Your task to perform on an android device: turn on sleep mode Image 0: 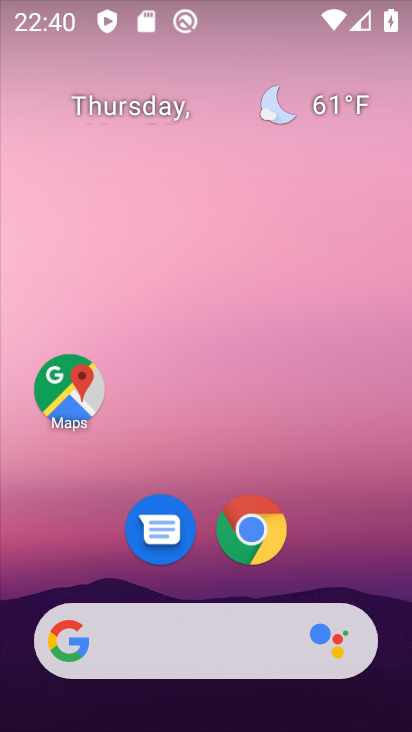
Step 0: drag from (357, 552) to (336, 96)
Your task to perform on an android device: turn on sleep mode Image 1: 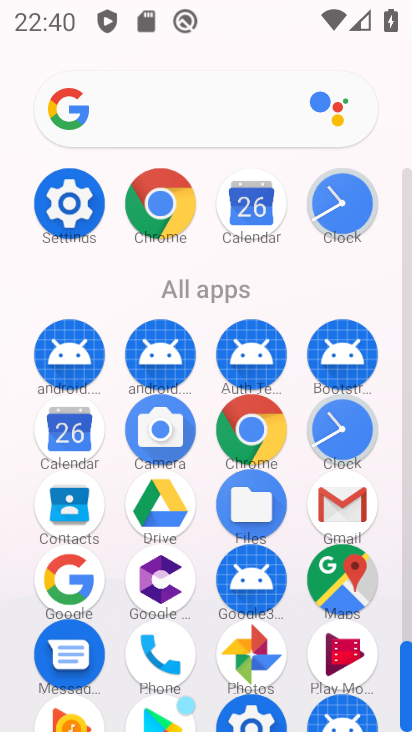
Step 1: click (69, 220)
Your task to perform on an android device: turn on sleep mode Image 2: 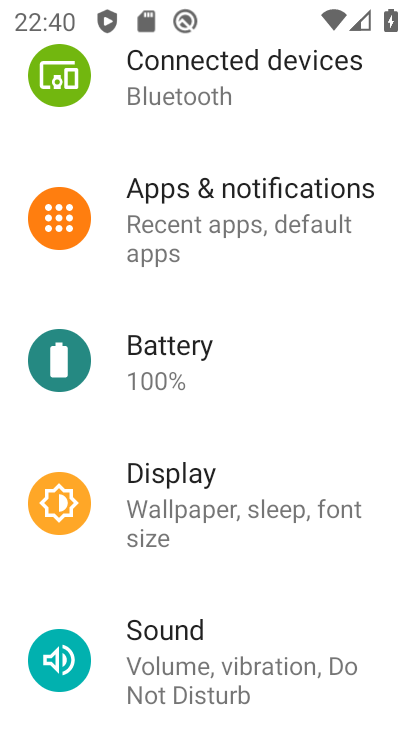
Step 2: click (223, 508)
Your task to perform on an android device: turn on sleep mode Image 3: 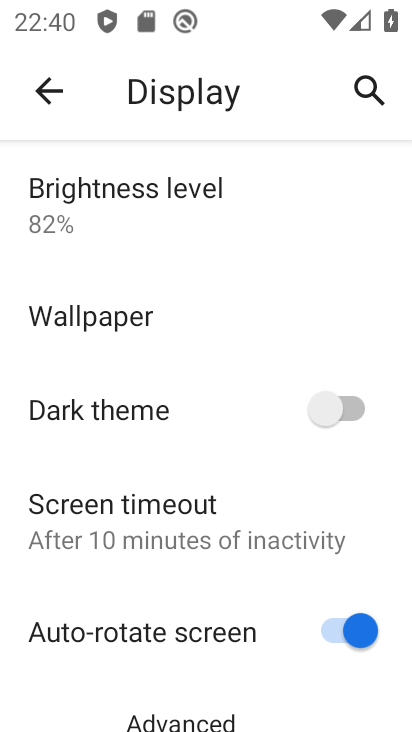
Step 3: click (178, 527)
Your task to perform on an android device: turn on sleep mode Image 4: 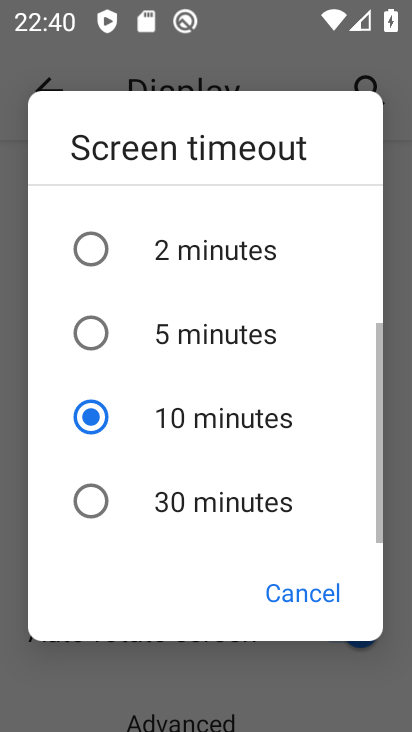
Step 4: click (173, 237)
Your task to perform on an android device: turn on sleep mode Image 5: 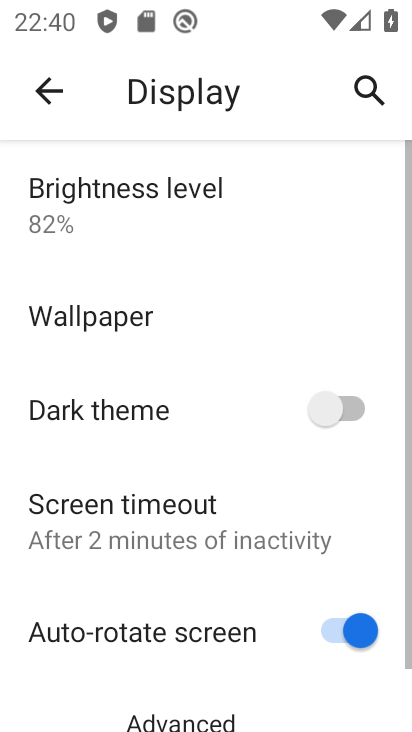
Step 5: task complete